Your task to perform on an android device: Open CNN.com Image 0: 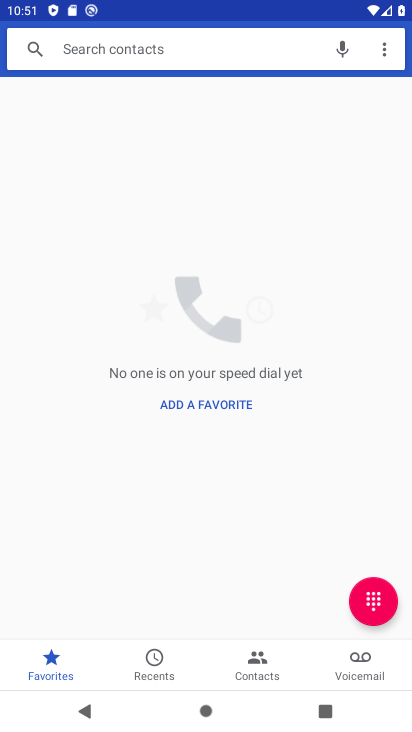
Step 0: press home button
Your task to perform on an android device: Open CNN.com Image 1: 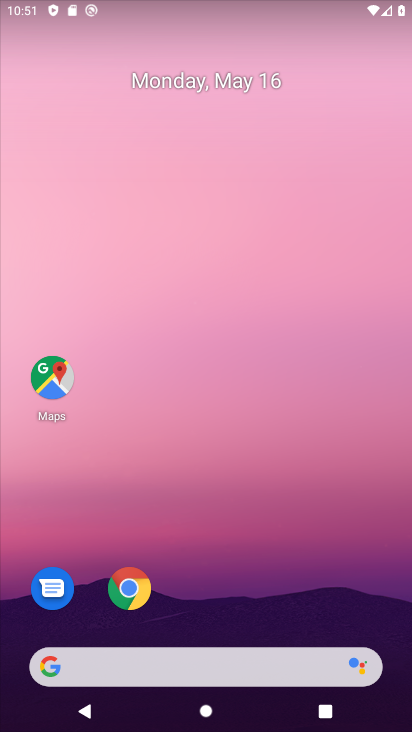
Step 1: drag from (327, 593) to (368, 115)
Your task to perform on an android device: Open CNN.com Image 2: 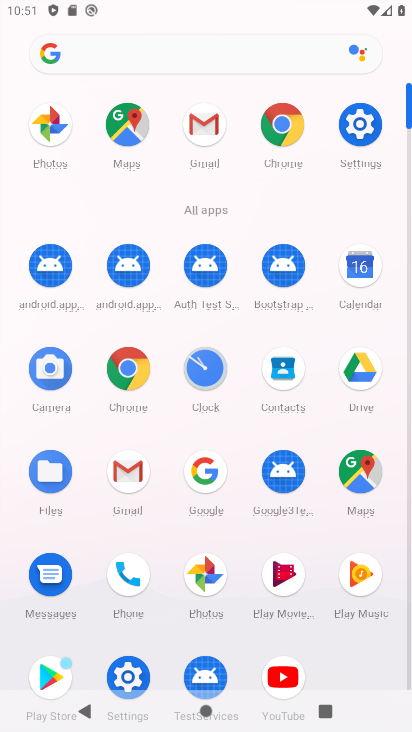
Step 2: click (296, 140)
Your task to perform on an android device: Open CNN.com Image 3: 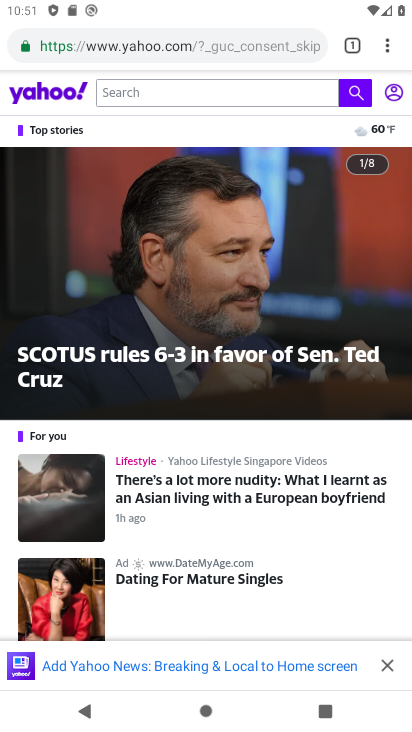
Step 3: click (224, 53)
Your task to perform on an android device: Open CNN.com Image 4: 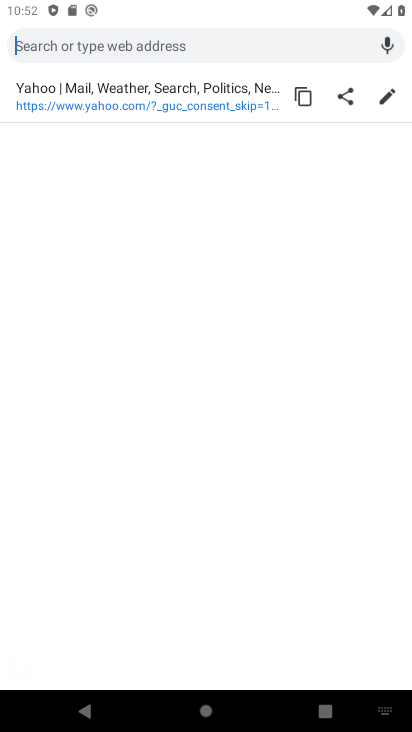
Step 4: type "cnn.com"
Your task to perform on an android device: Open CNN.com Image 5: 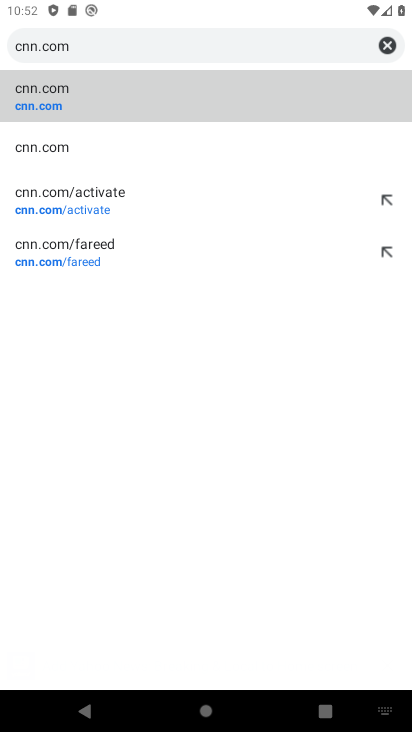
Step 5: click (55, 147)
Your task to perform on an android device: Open CNN.com Image 6: 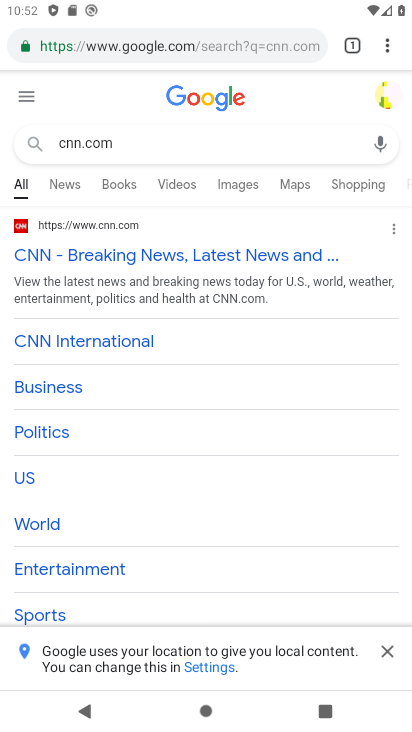
Step 6: task complete